Your task to perform on an android device: Go to privacy settings Image 0: 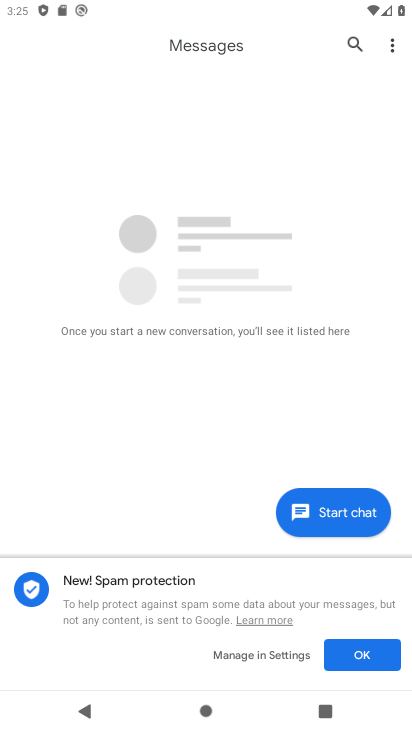
Step 0: press home button
Your task to perform on an android device: Go to privacy settings Image 1: 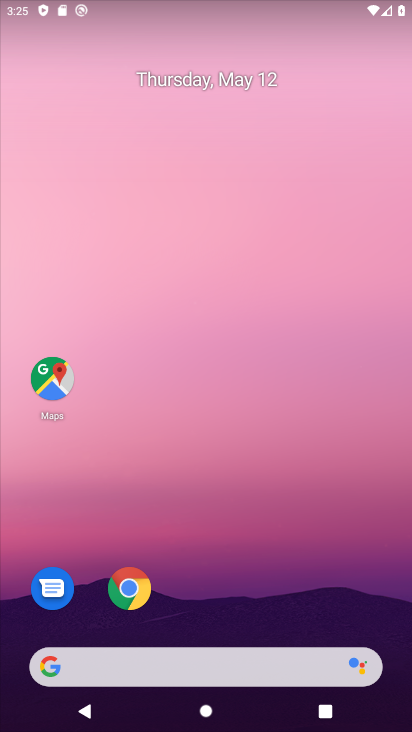
Step 1: click (143, 595)
Your task to perform on an android device: Go to privacy settings Image 2: 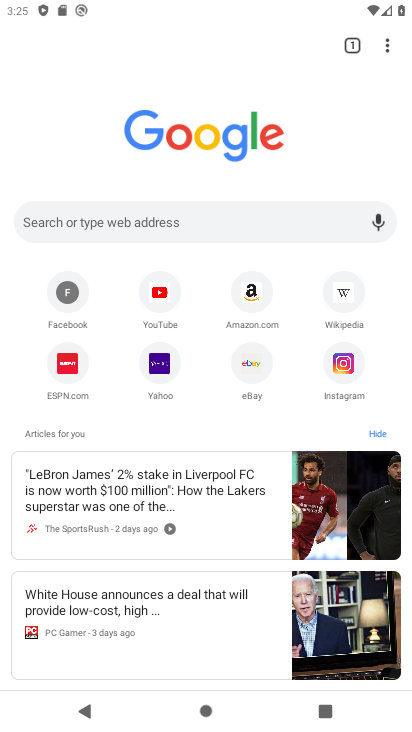
Step 2: drag from (388, 50) to (328, 385)
Your task to perform on an android device: Go to privacy settings Image 3: 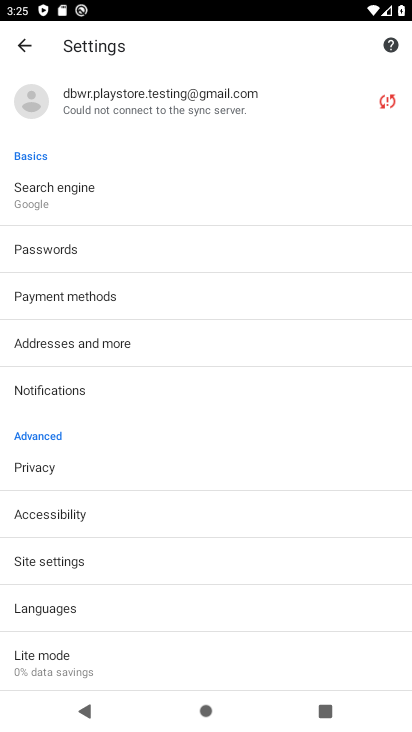
Step 3: click (145, 471)
Your task to perform on an android device: Go to privacy settings Image 4: 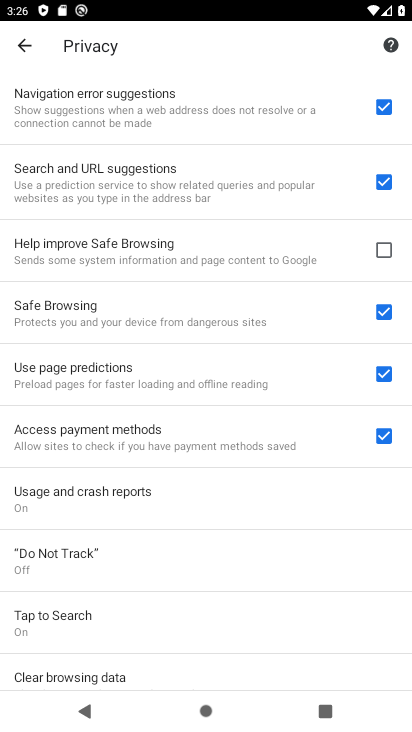
Step 4: task complete